Your task to perform on an android device: Open sound settings Image 0: 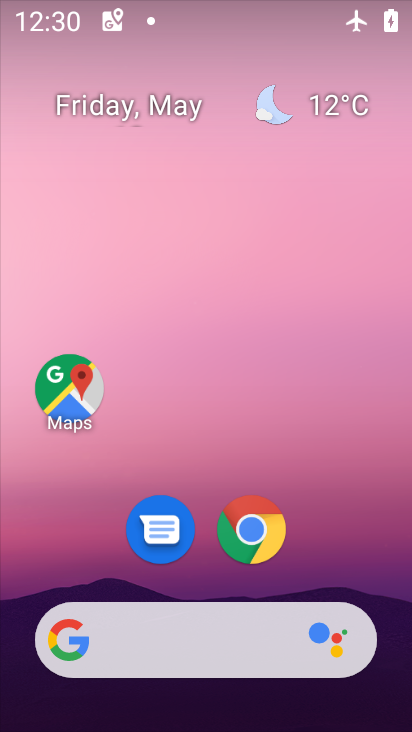
Step 0: drag from (334, 438) to (331, 245)
Your task to perform on an android device: Open sound settings Image 1: 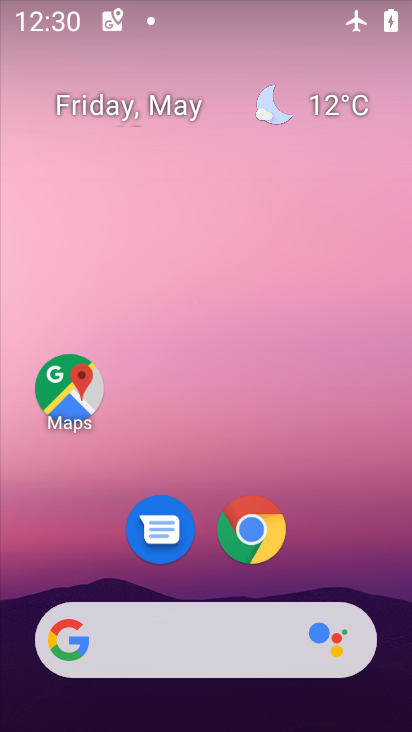
Step 1: drag from (325, 522) to (323, 229)
Your task to perform on an android device: Open sound settings Image 2: 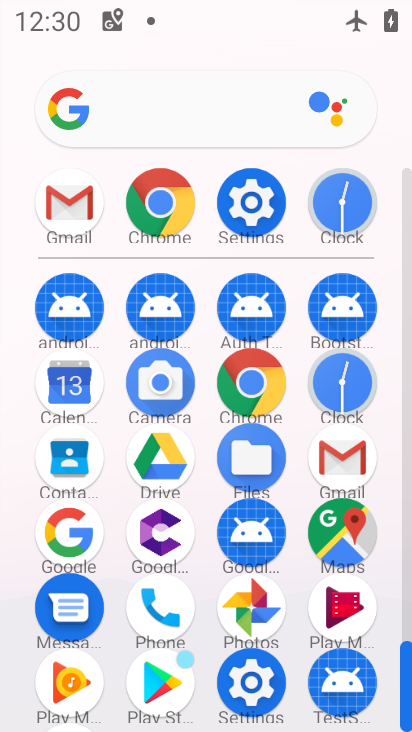
Step 2: click (260, 184)
Your task to perform on an android device: Open sound settings Image 3: 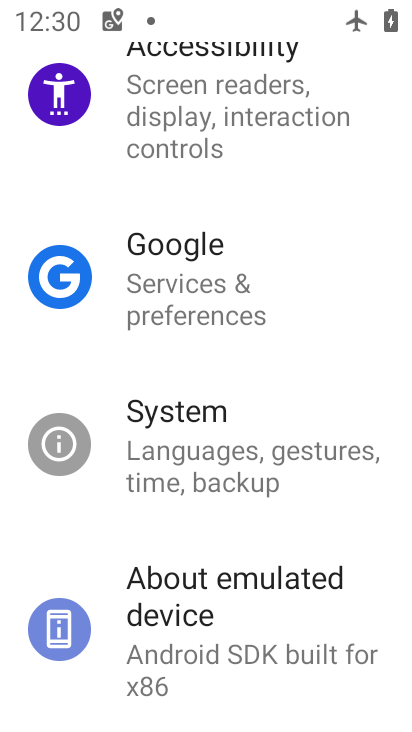
Step 3: drag from (226, 256) to (202, 655)
Your task to perform on an android device: Open sound settings Image 4: 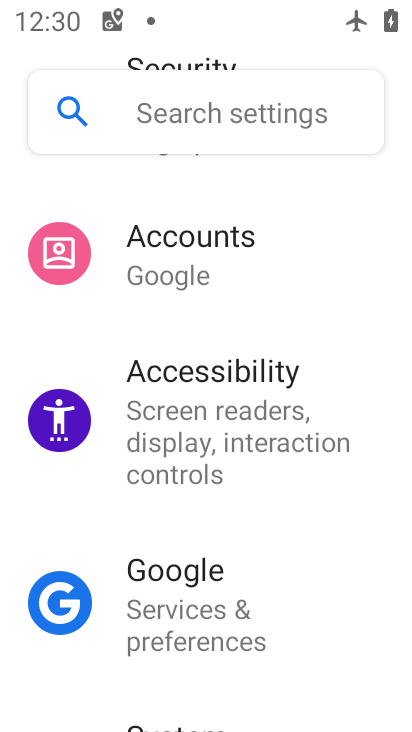
Step 4: drag from (206, 321) to (204, 678)
Your task to perform on an android device: Open sound settings Image 5: 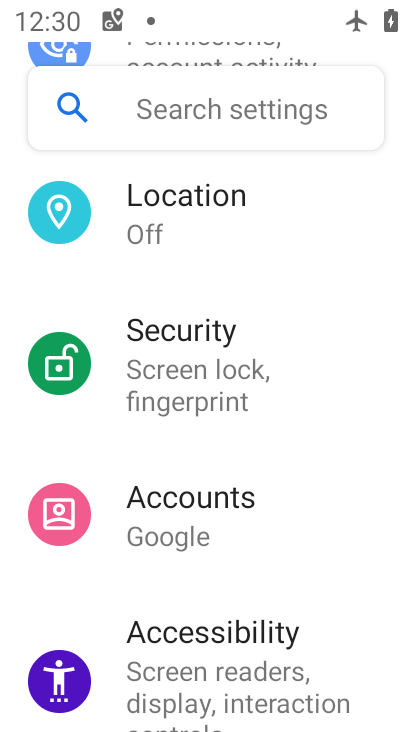
Step 5: drag from (188, 241) to (209, 663)
Your task to perform on an android device: Open sound settings Image 6: 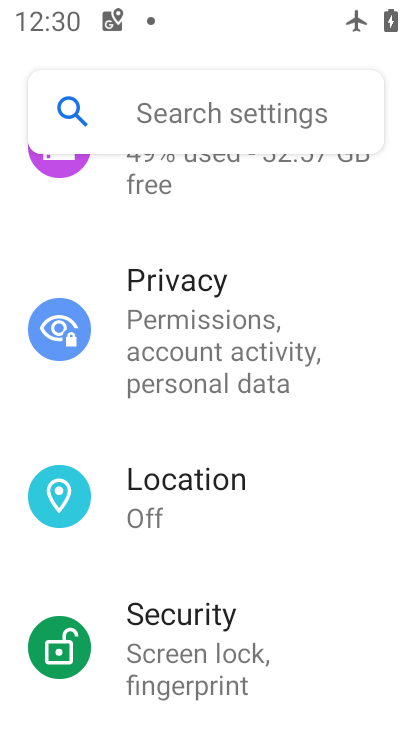
Step 6: drag from (246, 298) to (205, 687)
Your task to perform on an android device: Open sound settings Image 7: 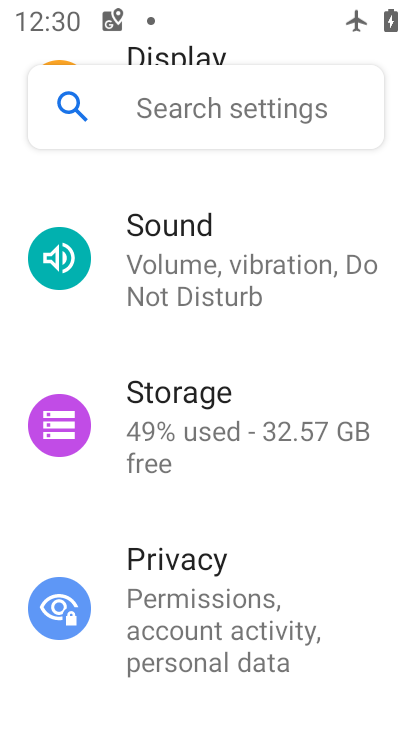
Step 7: drag from (254, 192) to (251, 499)
Your task to perform on an android device: Open sound settings Image 8: 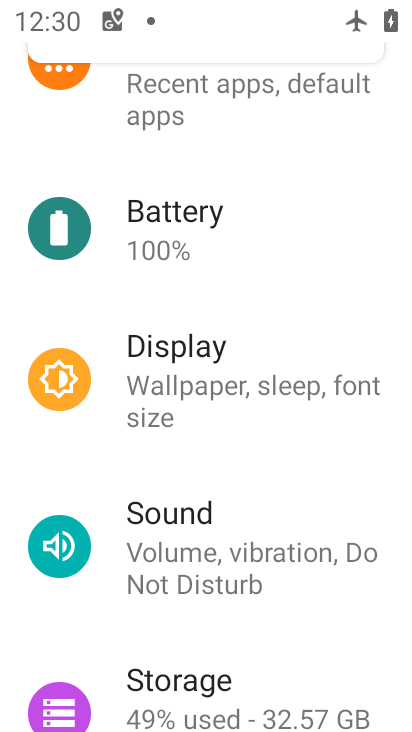
Step 8: click (192, 544)
Your task to perform on an android device: Open sound settings Image 9: 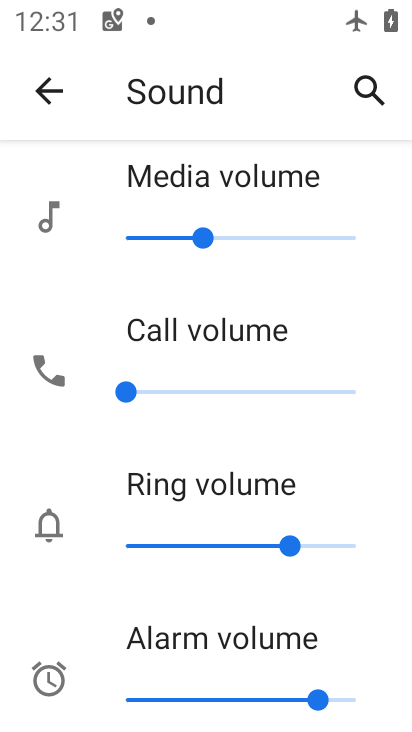
Step 9: task complete